Your task to perform on an android device: find snoozed emails in the gmail app Image 0: 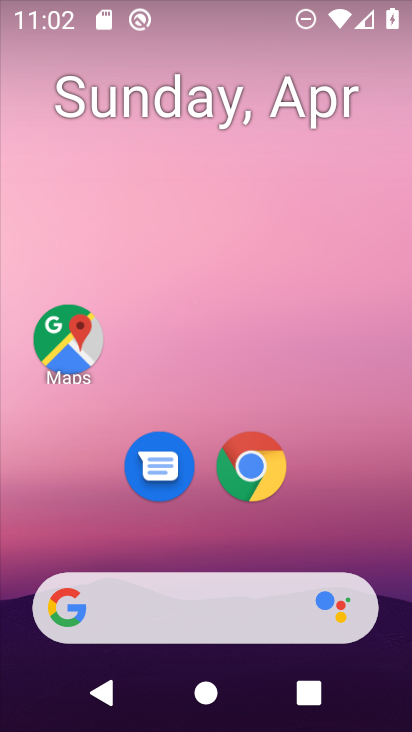
Step 0: drag from (362, 491) to (339, 105)
Your task to perform on an android device: find snoozed emails in the gmail app Image 1: 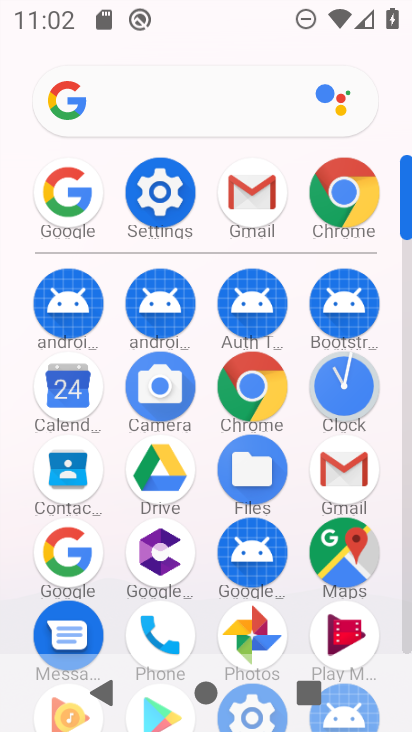
Step 1: click (334, 471)
Your task to perform on an android device: find snoozed emails in the gmail app Image 2: 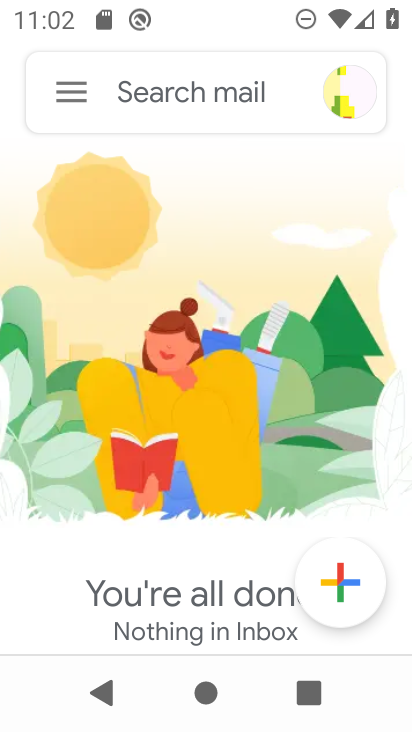
Step 2: click (70, 92)
Your task to perform on an android device: find snoozed emails in the gmail app Image 3: 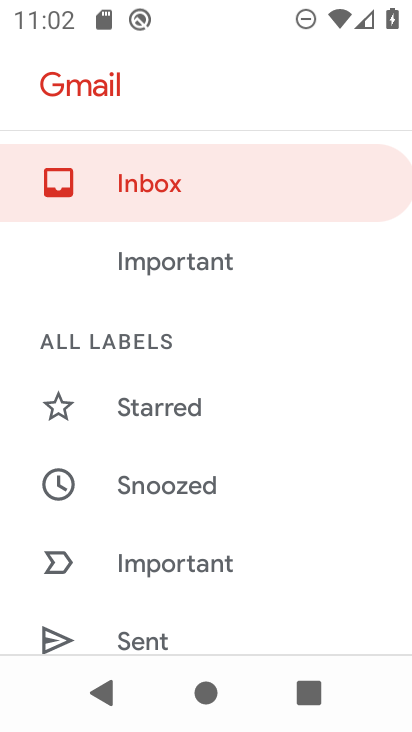
Step 3: drag from (313, 526) to (313, 301)
Your task to perform on an android device: find snoozed emails in the gmail app Image 4: 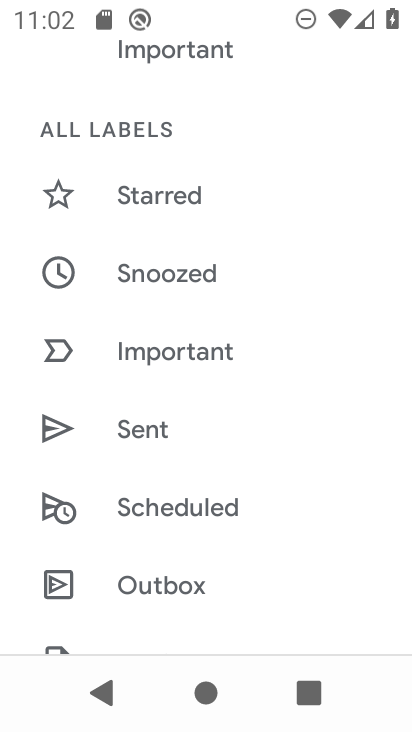
Step 4: drag from (334, 573) to (344, 260)
Your task to perform on an android device: find snoozed emails in the gmail app Image 5: 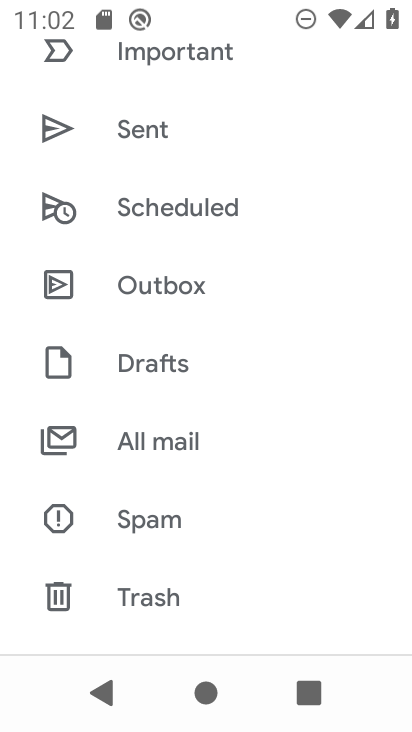
Step 5: drag from (293, 576) to (284, 343)
Your task to perform on an android device: find snoozed emails in the gmail app Image 6: 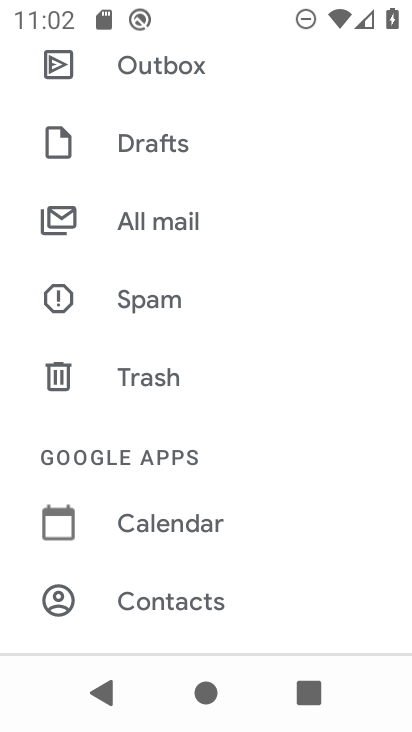
Step 6: drag from (294, 543) to (281, 321)
Your task to perform on an android device: find snoozed emails in the gmail app Image 7: 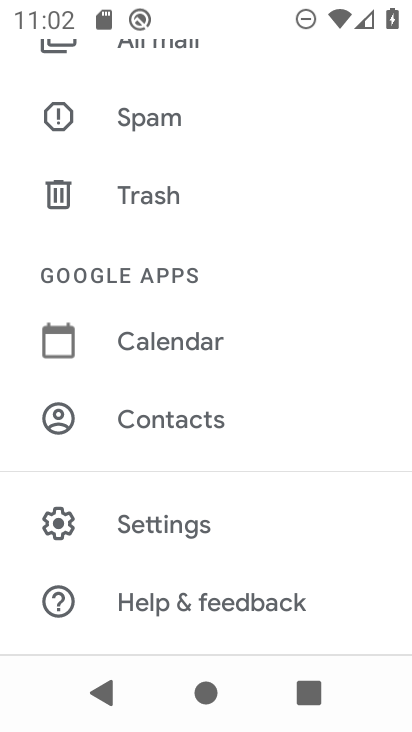
Step 7: drag from (307, 217) to (307, 291)
Your task to perform on an android device: find snoozed emails in the gmail app Image 8: 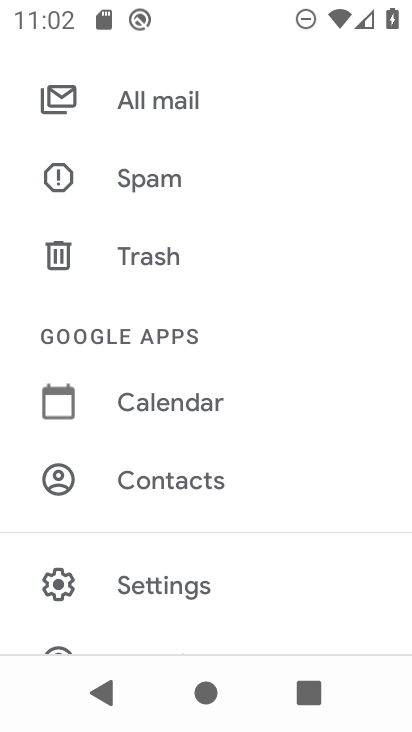
Step 8: drag from (316, 189) to (313, 381)
Your task to perform on an android device: find snoozed emails in the gmail app Image 9: 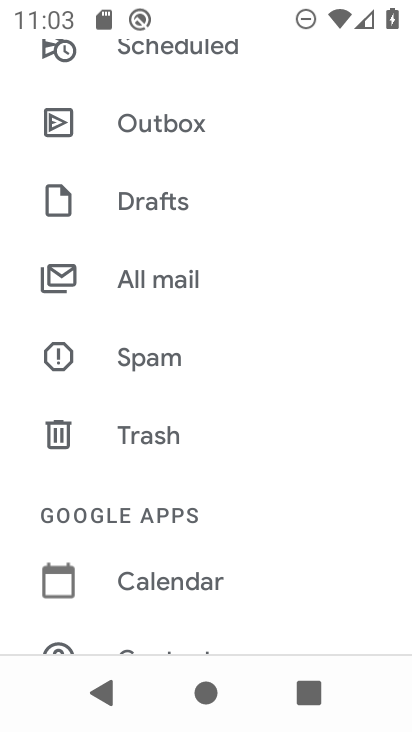
Step 9: drag from (318, 167) to (303, 371)
Your task to perform on an android device: find snoozed emails in the gmail app Image 10: 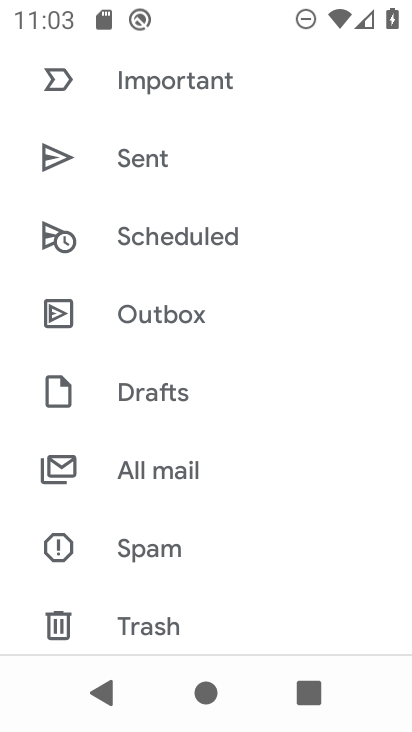
Step 10: drag from (307, 158) to (298, 344)
Your task to perform on an android device: find snoozed emails in the gmail app Image 11: 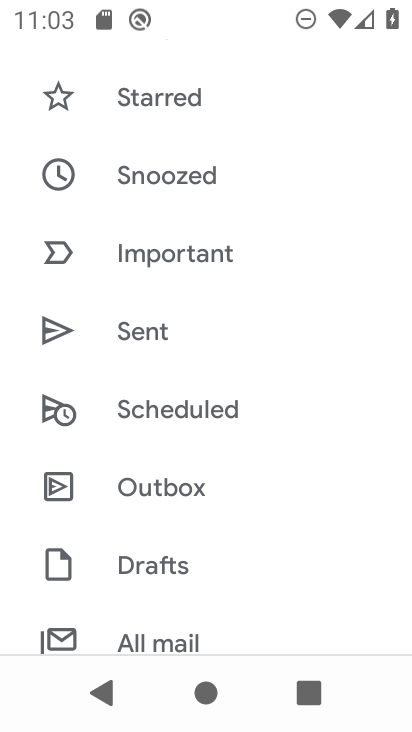
Step 11: drag from (311, 253) to (305, 322)
Your task to perform on an android device: find snoozed emails in the gmail app Image 12: 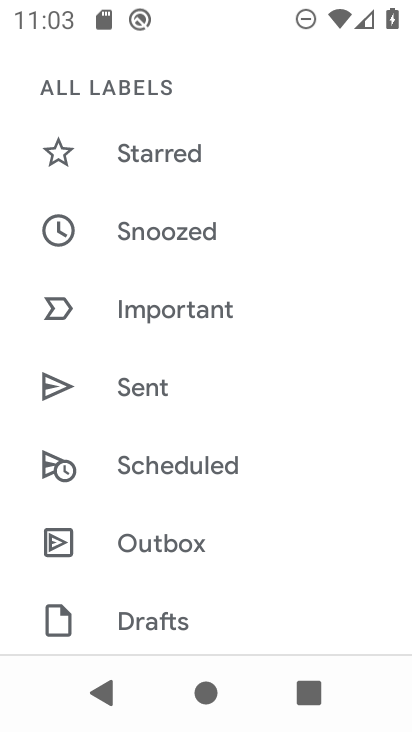
Step 12: drag from (309, 178) to (301, 345)
Your task to perform on an android device: find snoozed emails in the gmail app Image 13: 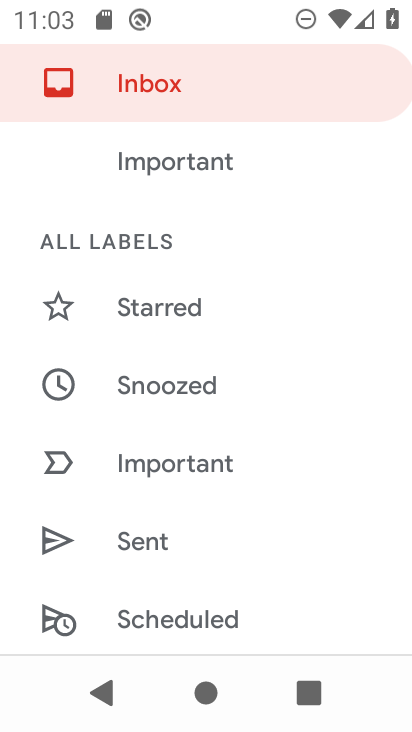
Step 13: click (204, 382)
Your task to perform on an android device: find snoozed emails in the gmail app Image 14: 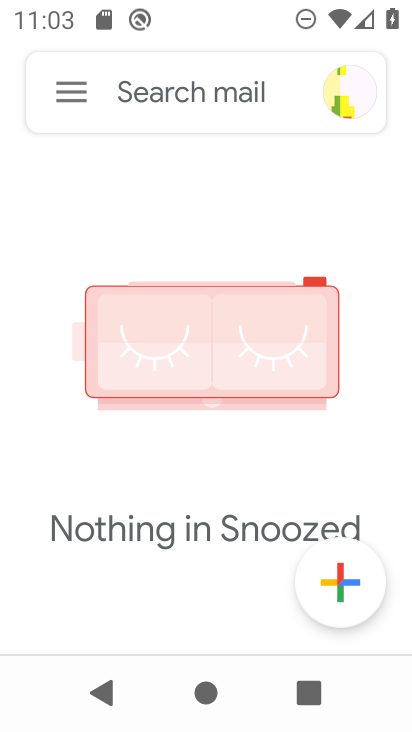
Step 14: task complete